Your task to perform on an android device: open app "Firefox Browser" (install if not already installed) and go to login screen Image 0: 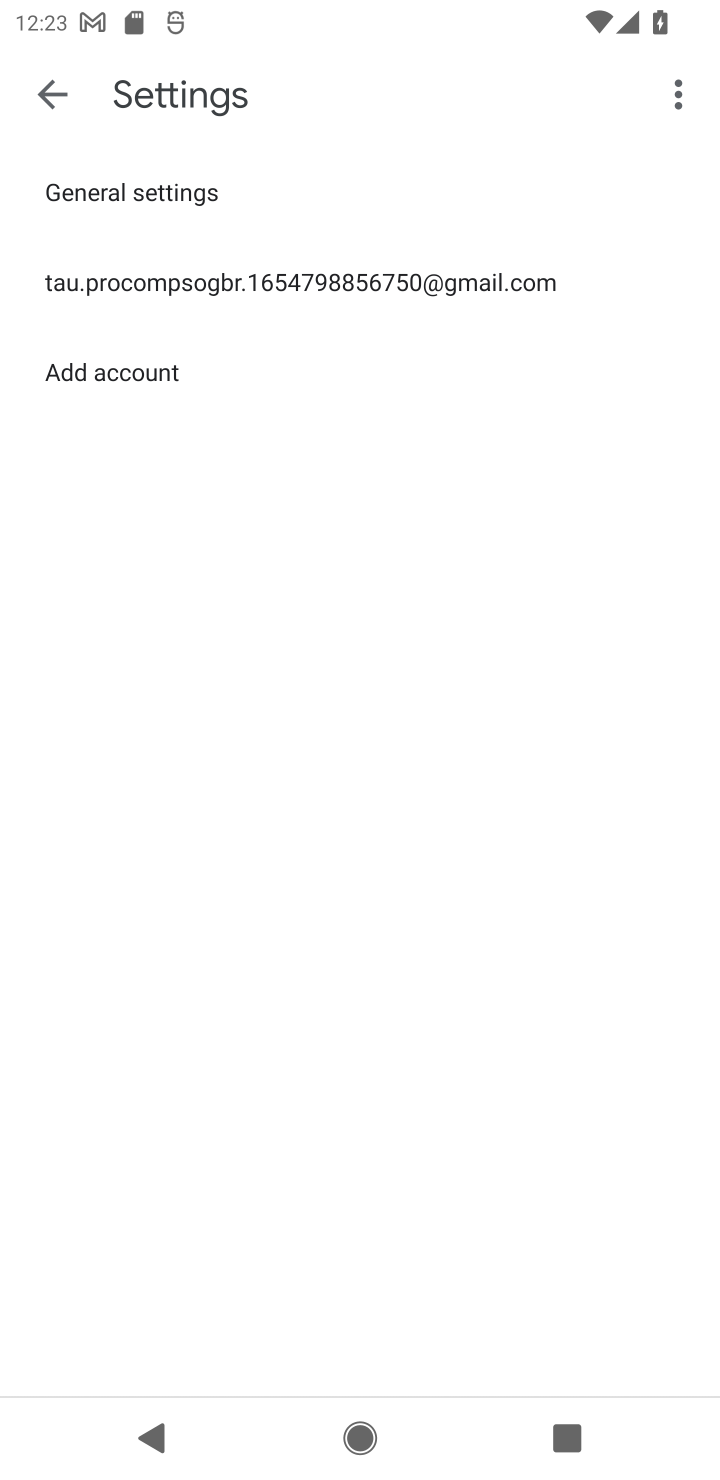
Step 0: press home button
Your task to perform on an android device: open app "Firefox Browser" (install if not already installed) and go to login screen Image 1: 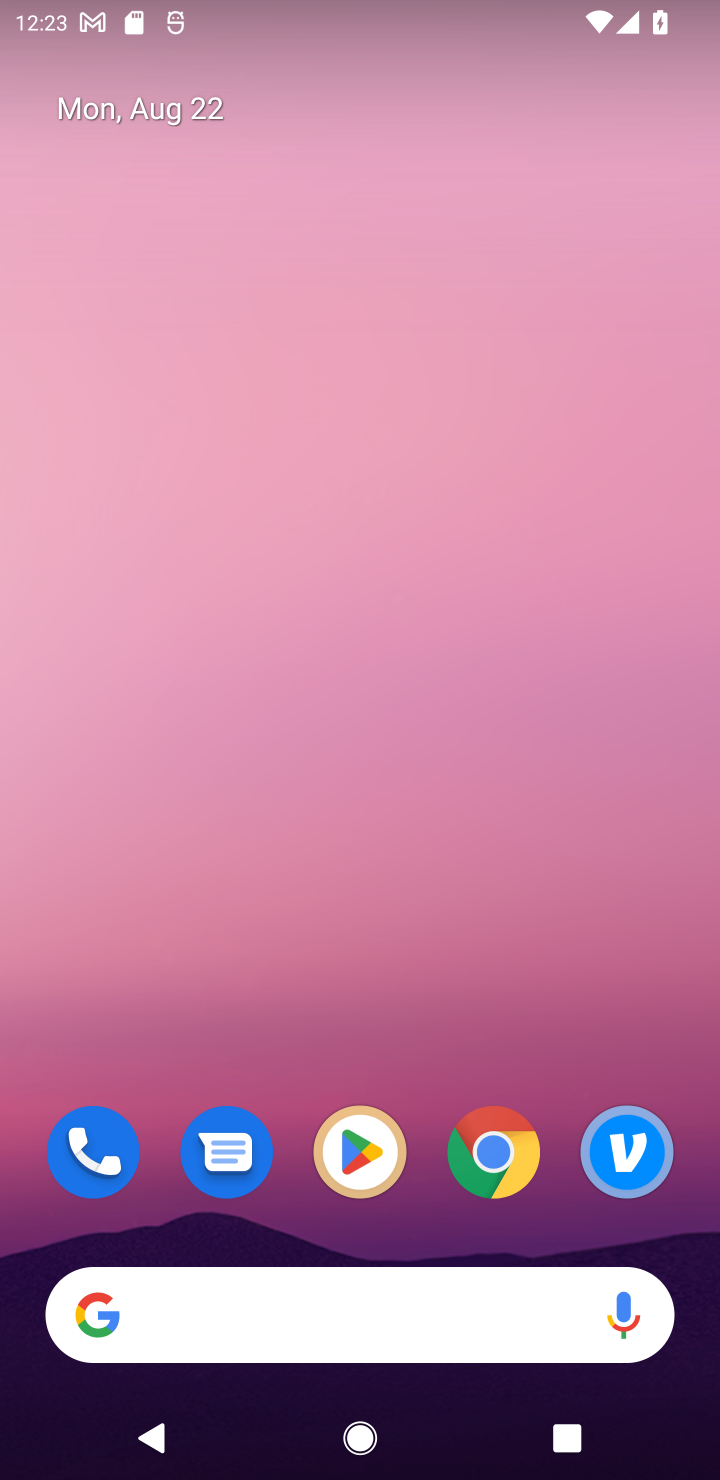
Step 1: click (346, 1176)
Your task to perform on an android device: open app "Firefox Browser" (install if not already installed) and go to login screen Image 2: 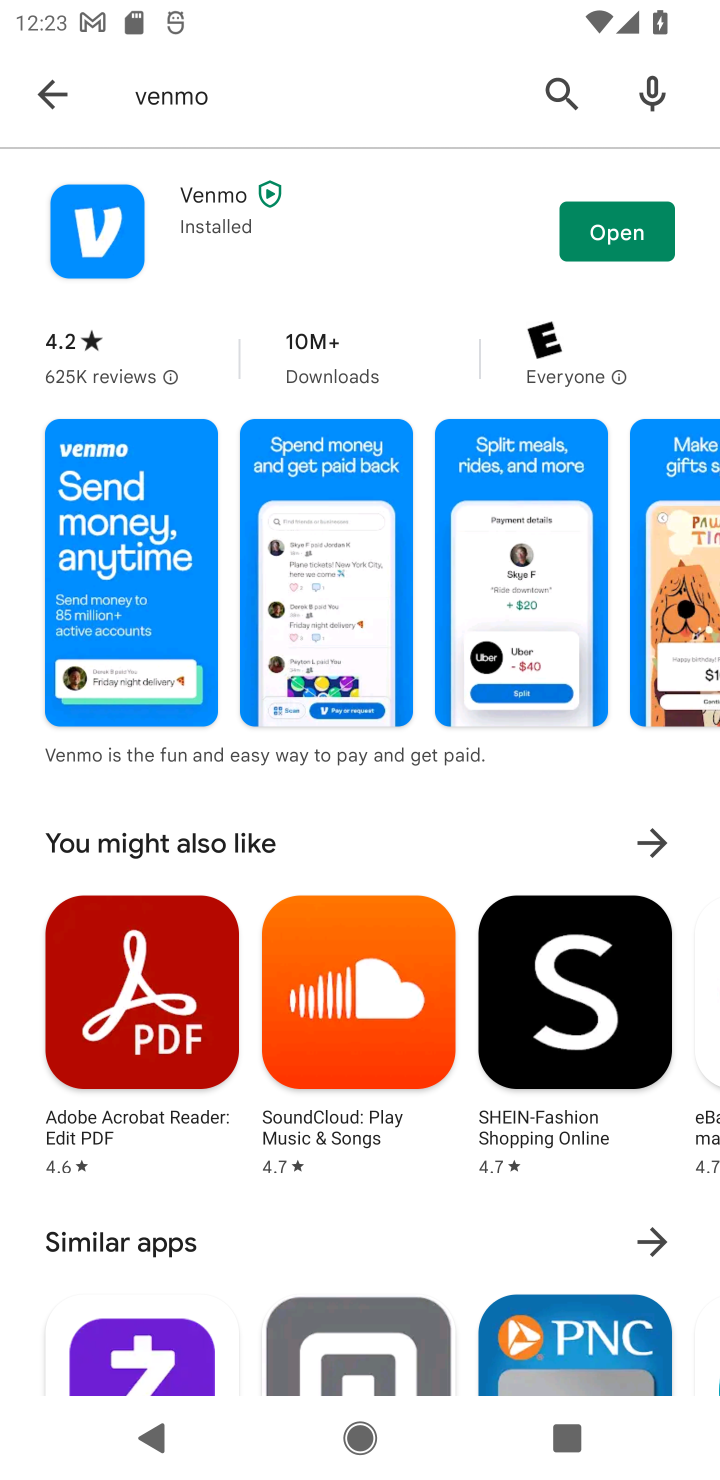
Step 2: click (50, 109)
Your task to perform on an android device: open app "Firefox Browser" (install if not already installed) and go to login screen Image 3: 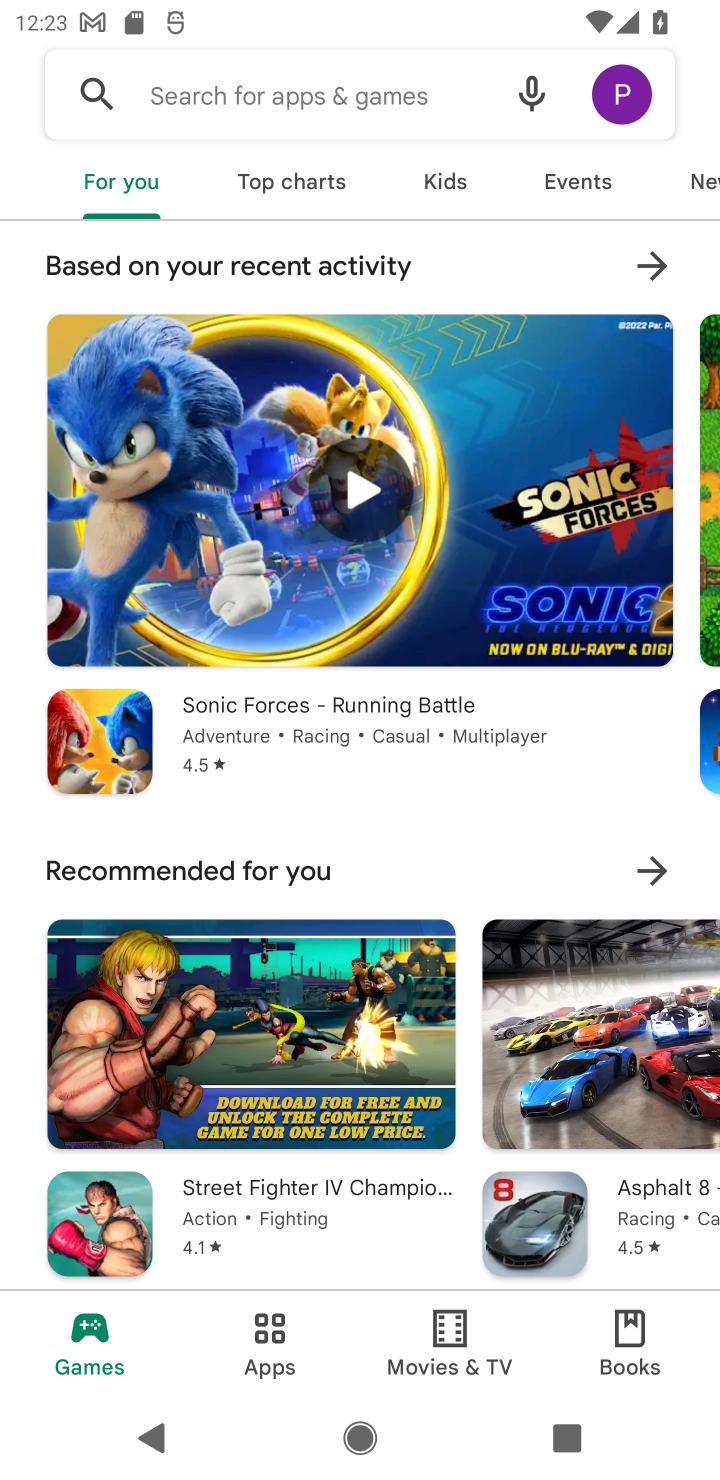
Step 3: click (291, 93)
Your task to perform on an android device: open app "Firefox Browser" (install if not already installed) and go to login screen Image 4: 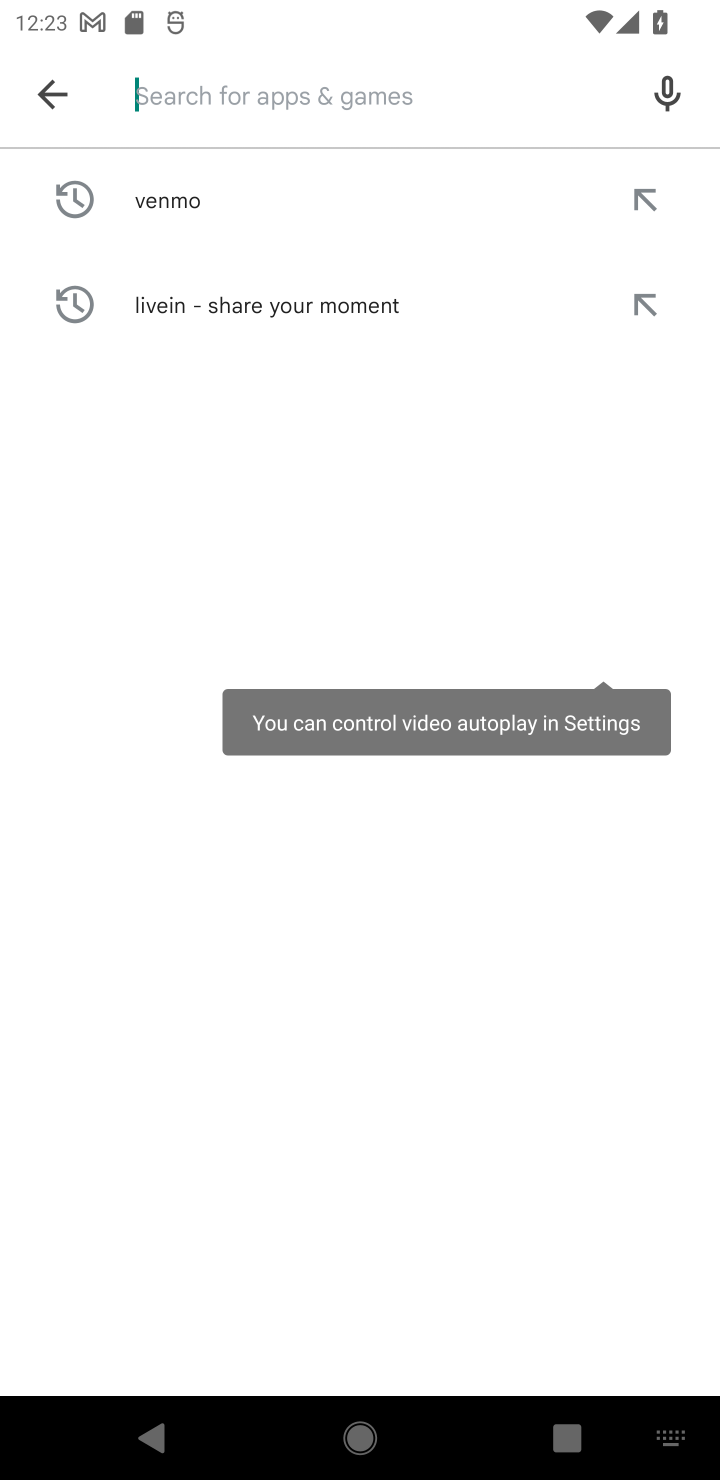
Step 4: type "Firefox Browser"
Your task to perform on an android device: open app "Firefox Browser" (install if not already installed) and go to login screen Image 5: 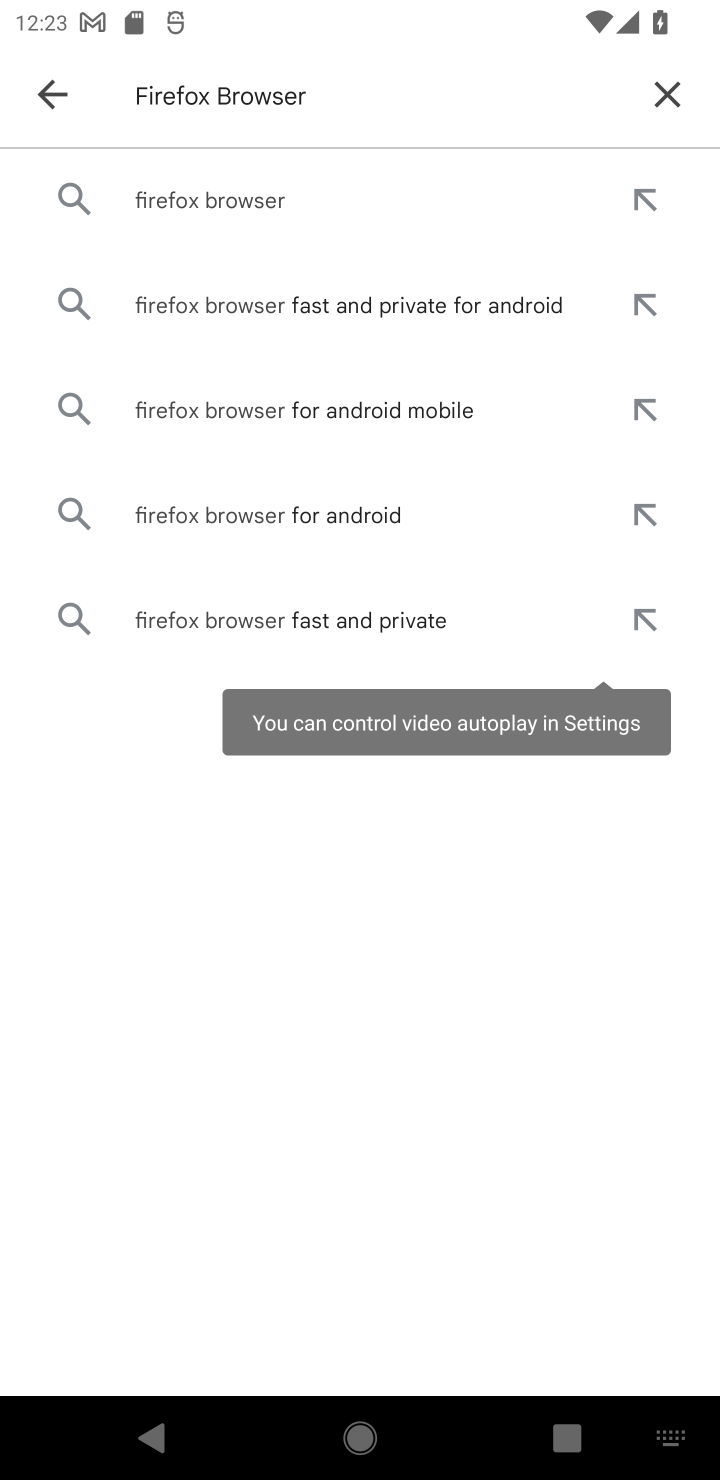
Step 5: click (178, 197)
Your task to perform on an android device: open app "Firefox Browser" (install if not already installed) and go to login screen Image 6: 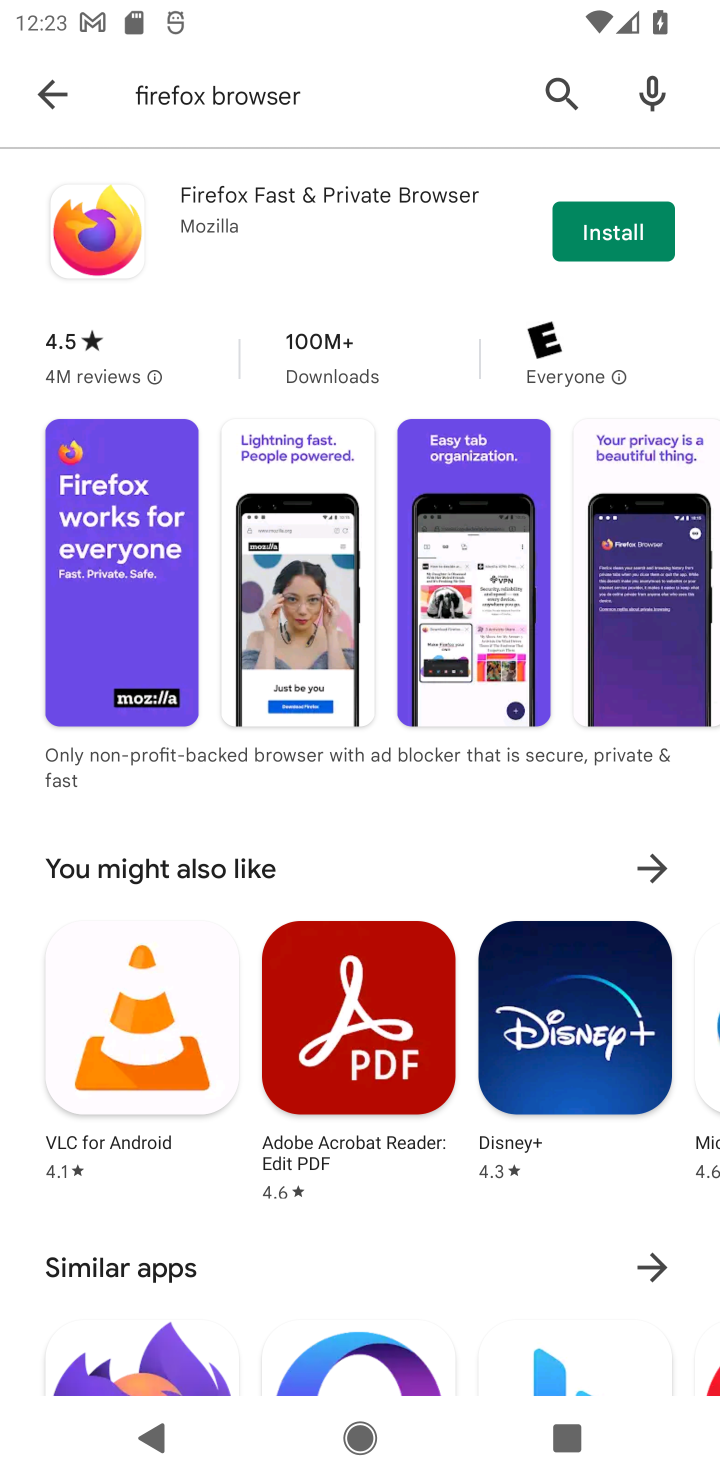
Step 6: click (628, 237)
Your task to perform on an android device: open app "Firefox Browser" (install if not already installed) and go to login screen Image 7: 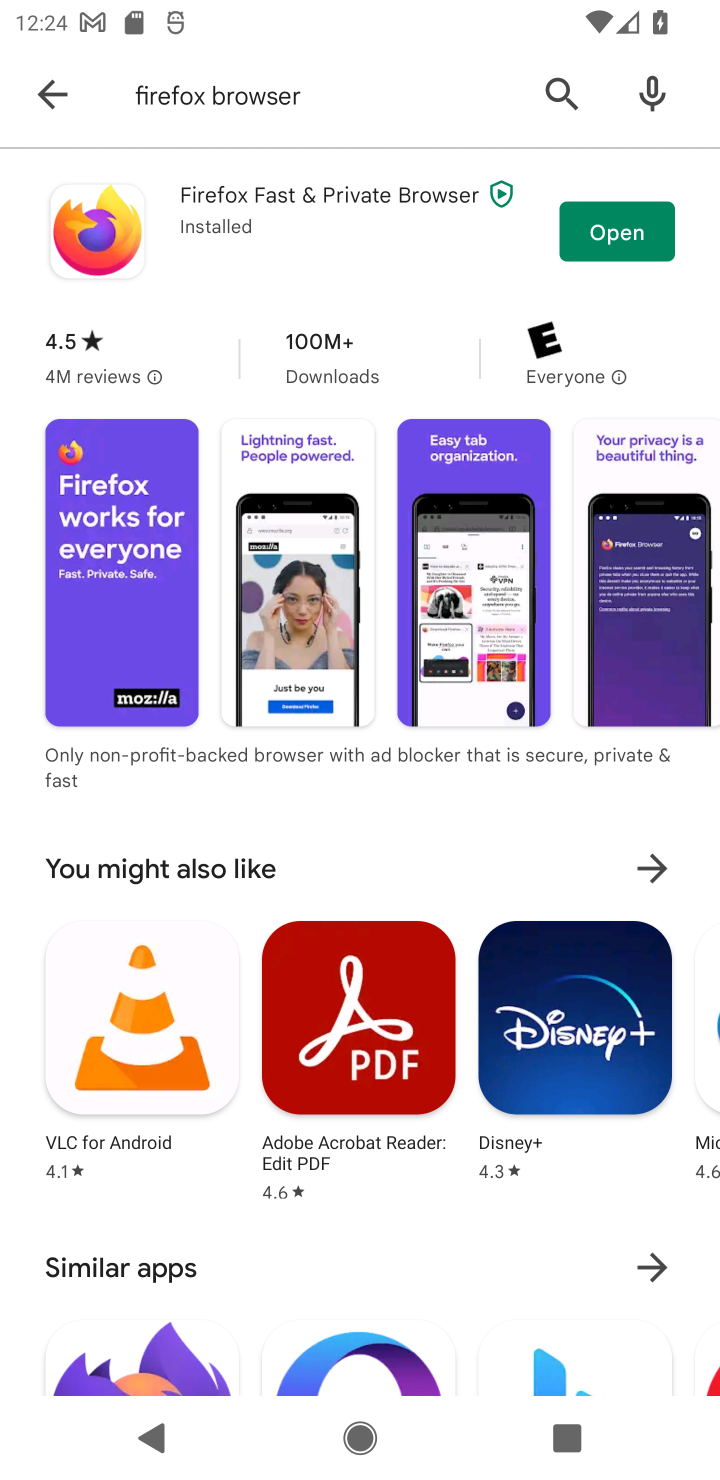
Step 7: click (628, 237)
Your task to perform on an android device: open app "Firefox Browser" (install if not already installed) and go to login screen Image 8: 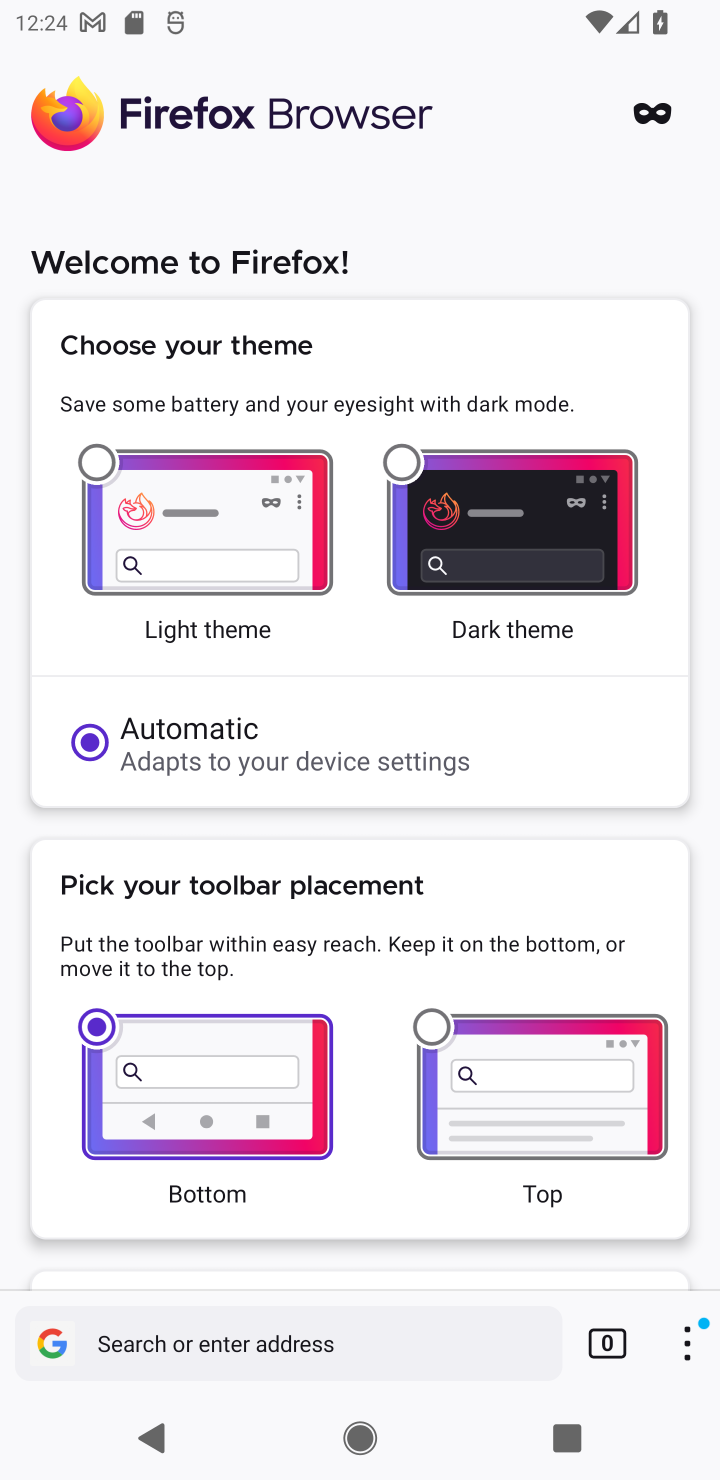
Step 8: task complete